Your task to perform on an android device: toggle airplane mode Image 0: 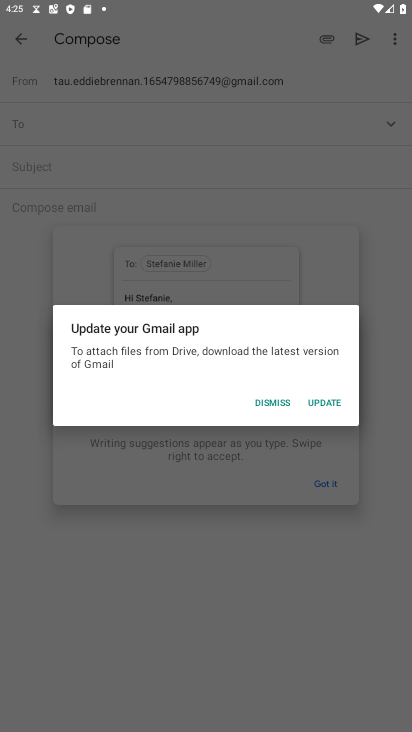
Step 0: press home button
Your task to perform on an android device: toggle airplane mode Image 1: 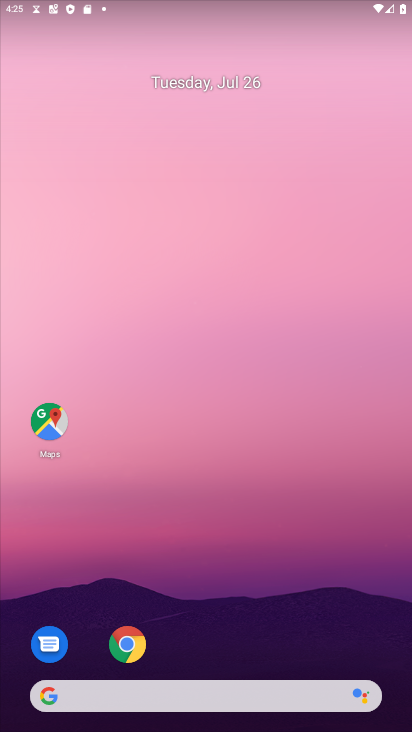
Step 1: drag from (231, 639) to (214, 172)
Your task to perform on an android device: toggle airplane mode Image 2: 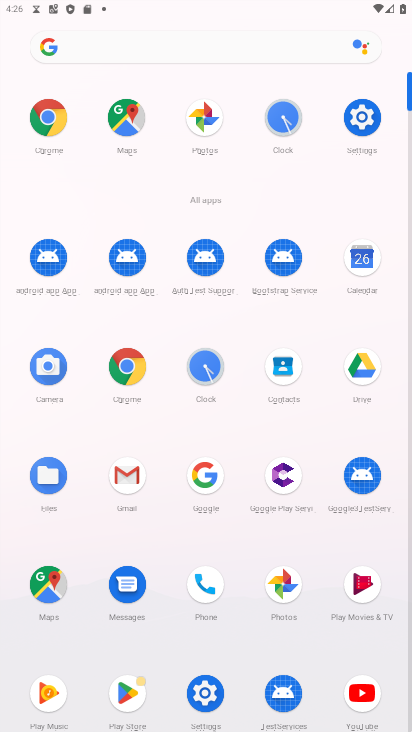
Step 2: click (361, 119)
Your task to perform on an android device: toggle airplane mode Image 3: 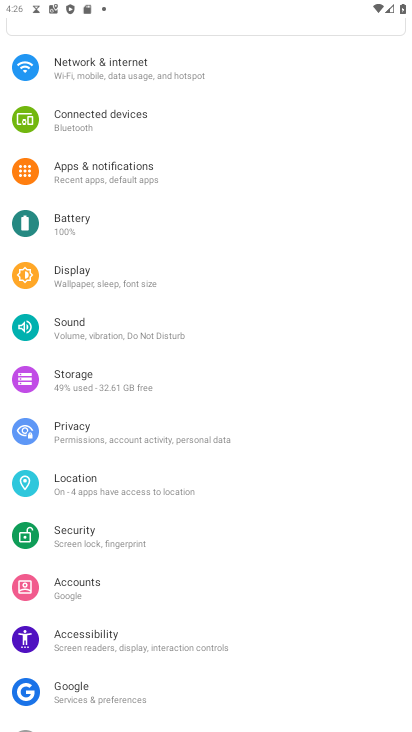
Step 3: click (139, 84)
Your task to perform on an android device: toggle airplane mode Image 4: 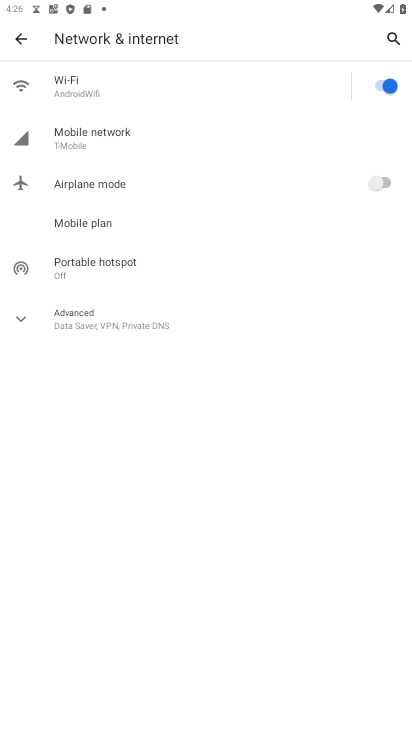
Step 4: click (377, 186)
Your task to perform on an android device: toggle airplane mode Image 5: 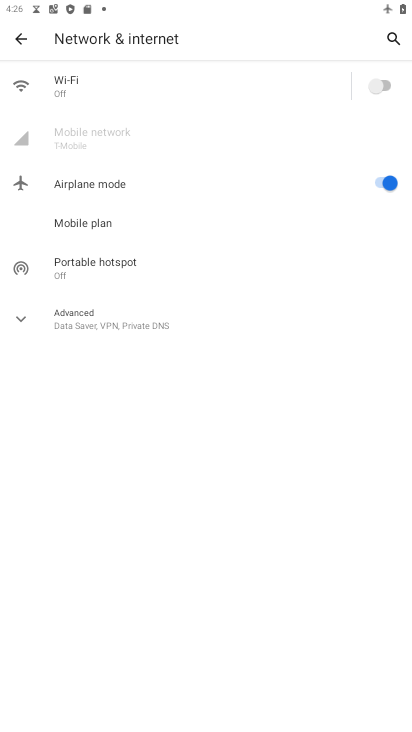
Step 5: task complete